Your task to perform on an android device: Find coffee shops on Maps Image 0: 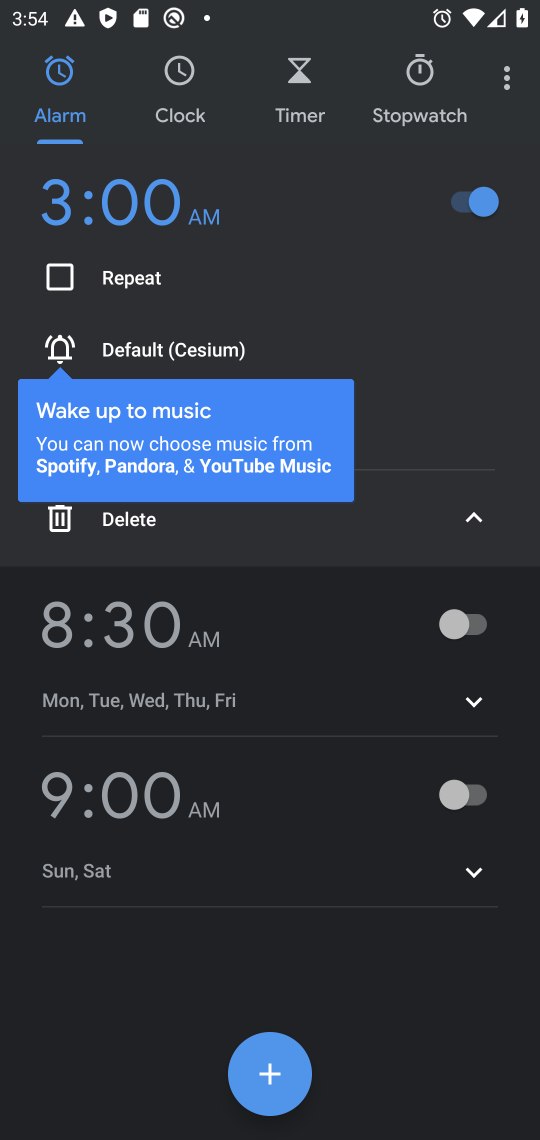
Step 0: click (271, 1070)
Your task to perform on an android device: Find coffee shops on Maps Image 1: 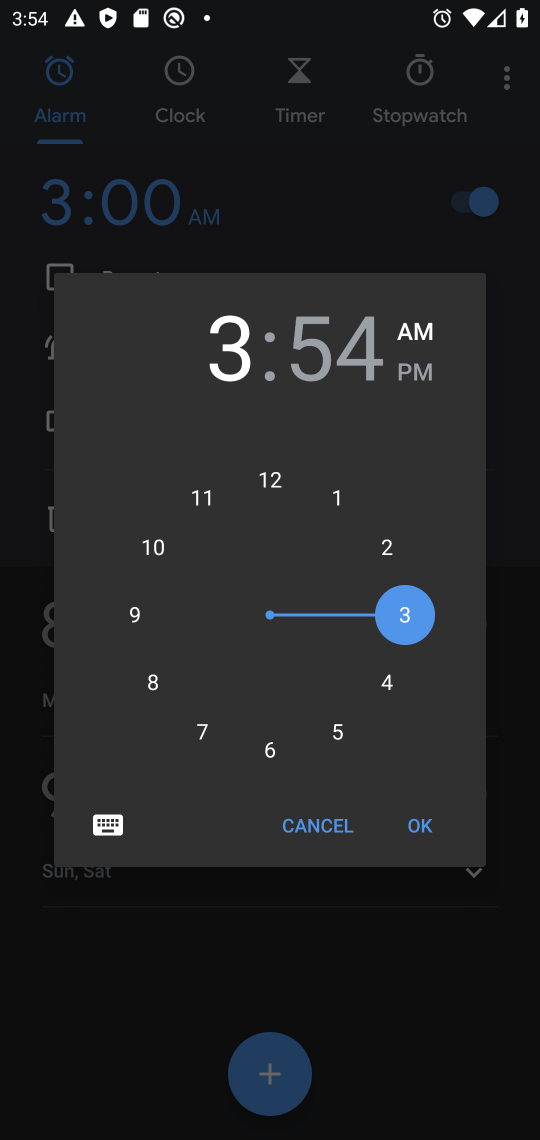
Step 1: press home button
Your task to perform on an android device: Find coffee shops on Maps Image 2: 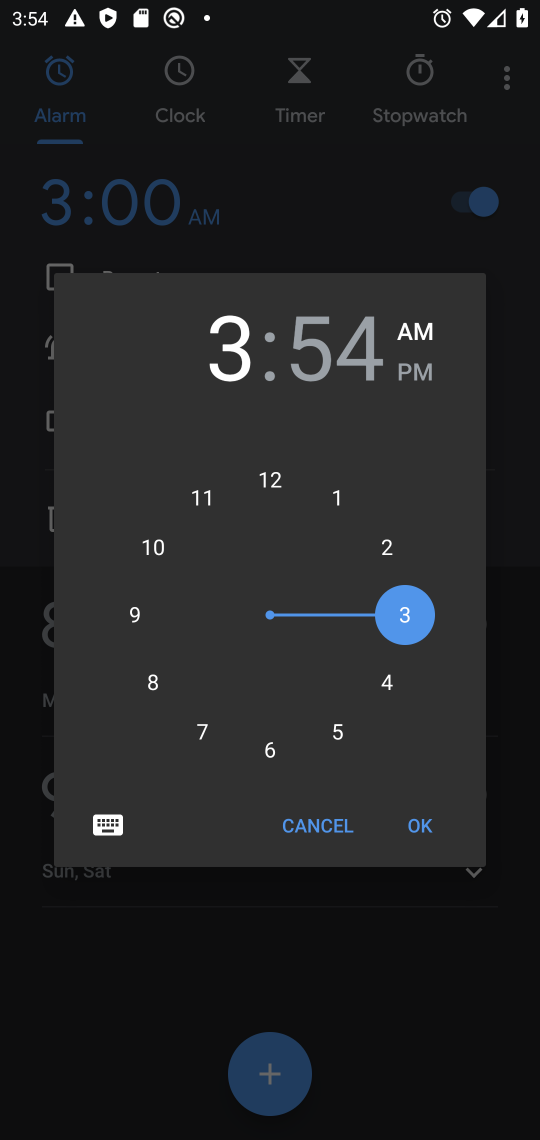
Step 2: press home button
Your task to perform on an android device: Find coffee shops on Maps Image 3: 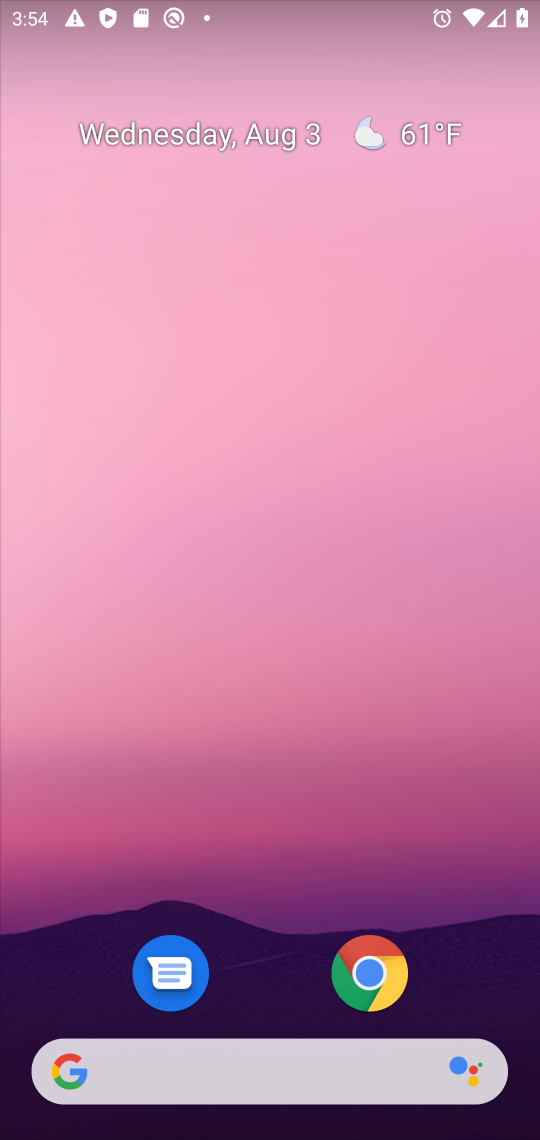
Step 3: drag from (277, 877) to (400, 61)
Your task to perform on an android device: Find coffee shops on Maps Image 4: 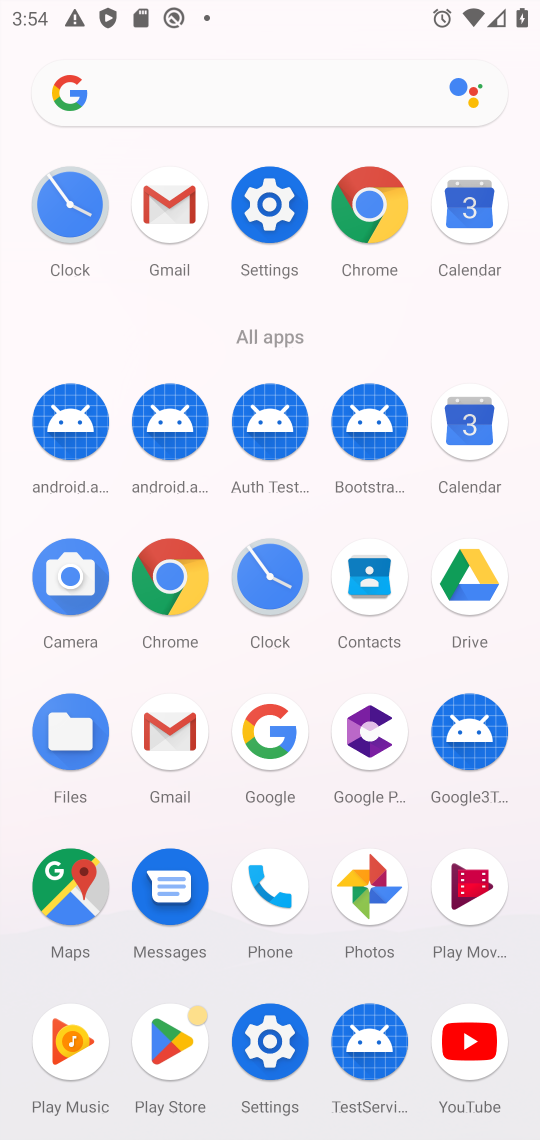
Step 4: click (71, 865)
Your task to perform on an android device: Find coffee shops on Maps Image 5: 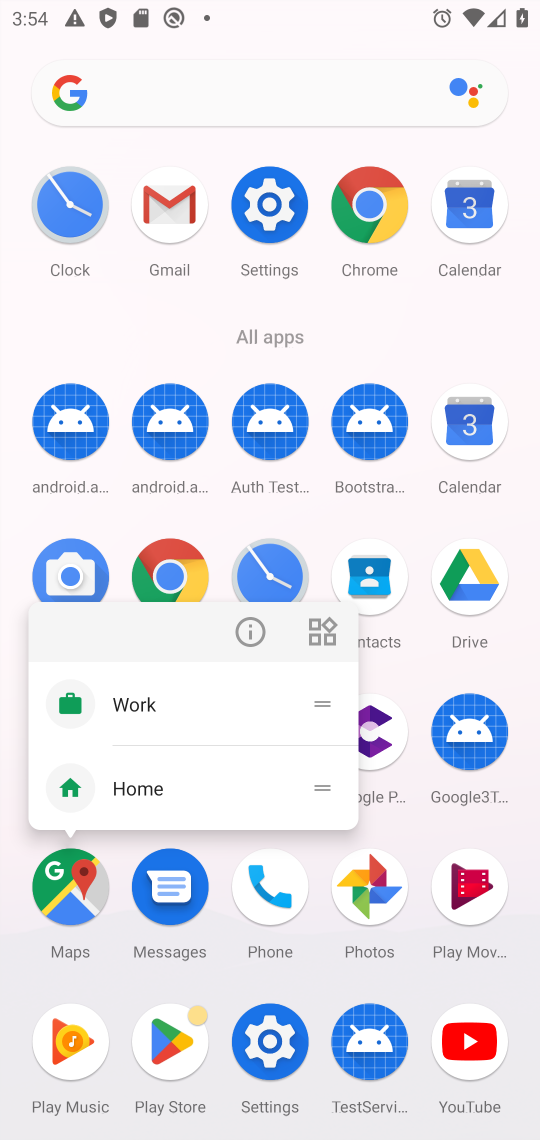
Step 5: click (71, 865)
Your task to perform on an android device: Find coffee shops on Maps Image 6: 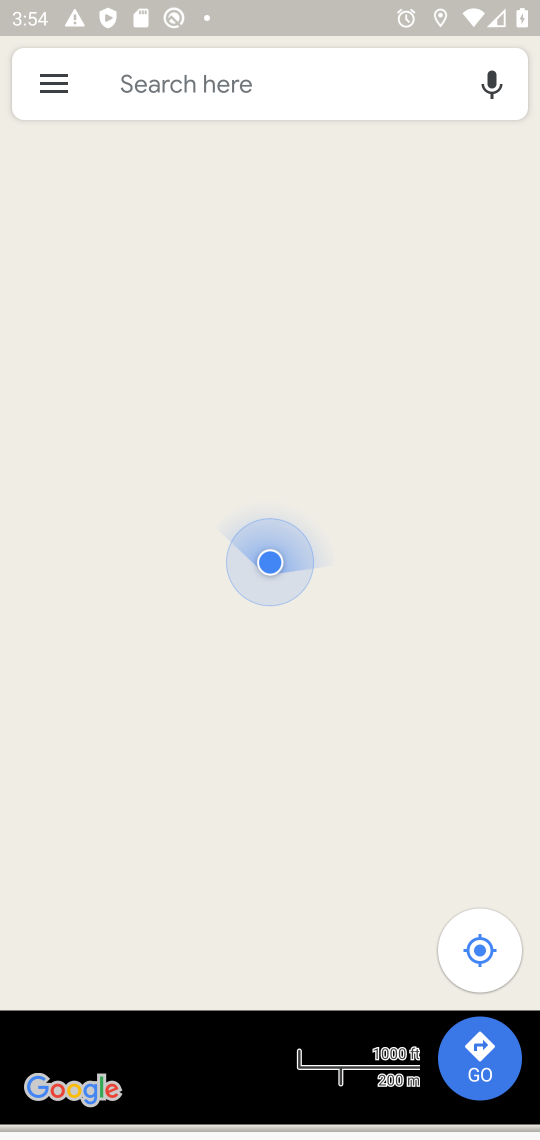
Step 6: click (285, 99)
Your task to perform on an android device: Find coffee shops on Maps Image 7: 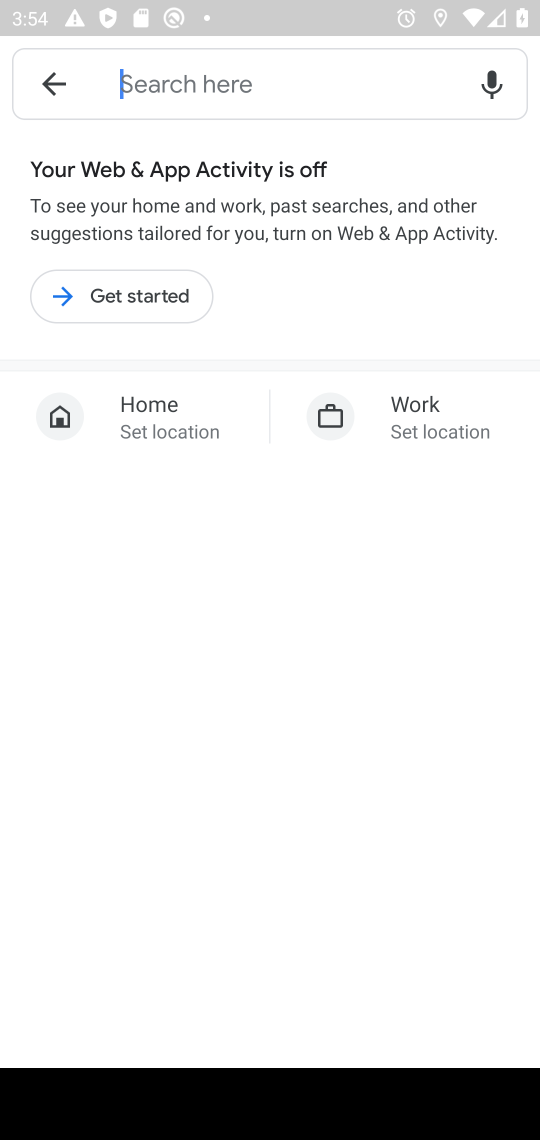
Step 7: click (285, 99)
Your task to perform on an android device: Find coffee shops on Maps Image 8: 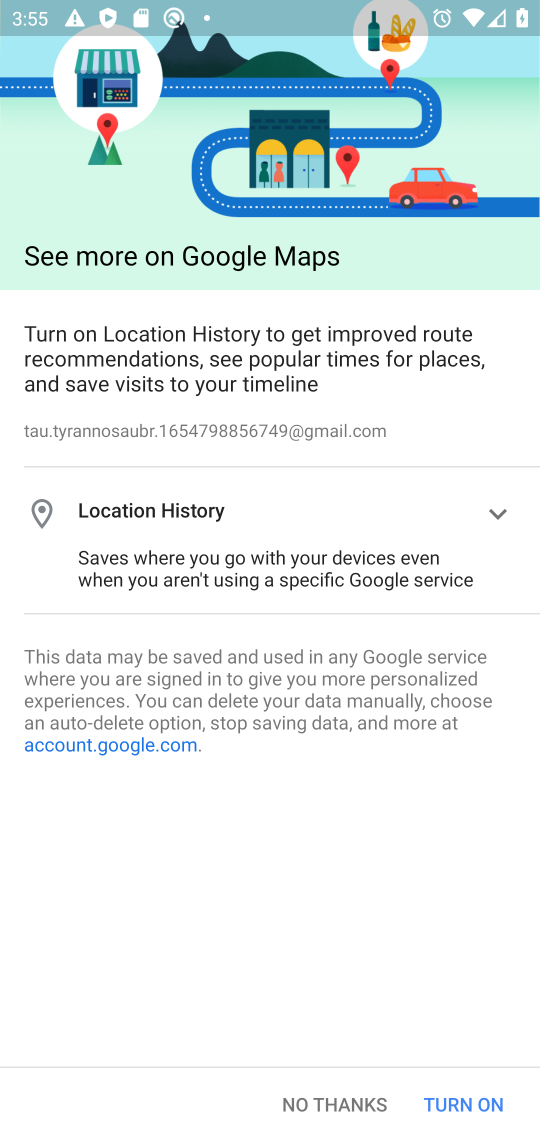
Step 8: type "coff"
Your task to perform on an android device: Find coffee shops on Maps Image 9: 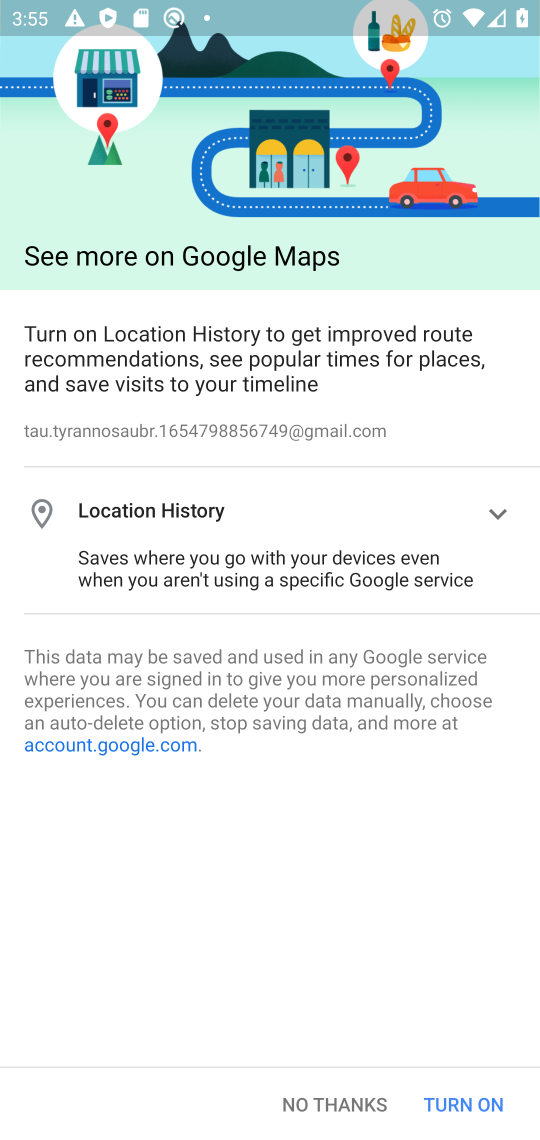
Step 9: click (476, 1089)
Your task to perform on an android device: Find coffee shops on Maps Image 10: 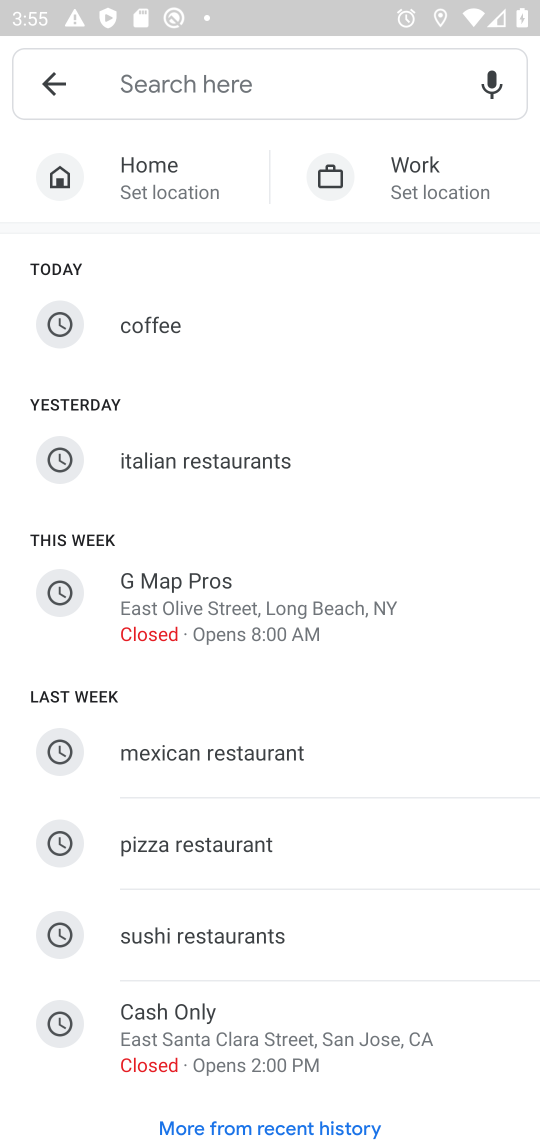
Step 10: click (165, 326)
Your task to perform on an android device: Find coffee shops on Maps Image 11: 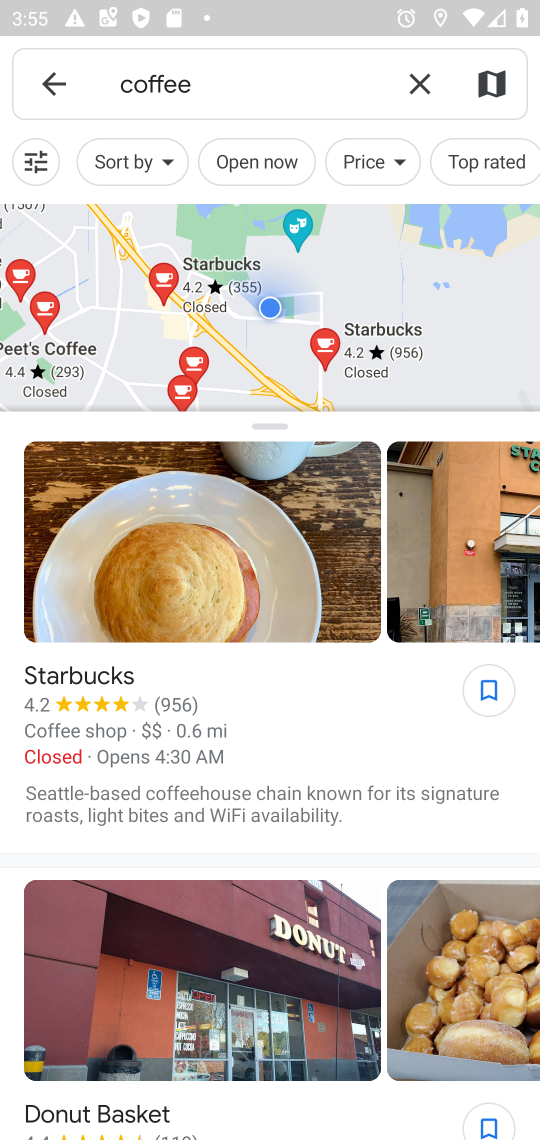
Step 11: task complete